Your task to perform on an android device: turn on improve location accuracy Image 0: 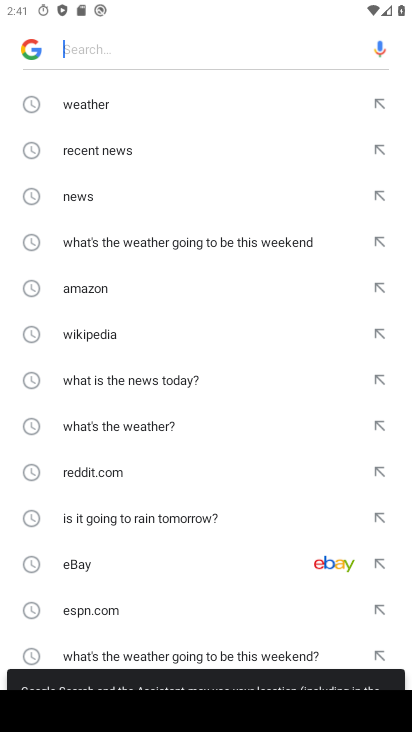
Step 0: press home button
Your task to perform on an android device: turn on improve location accuracy Image 1: 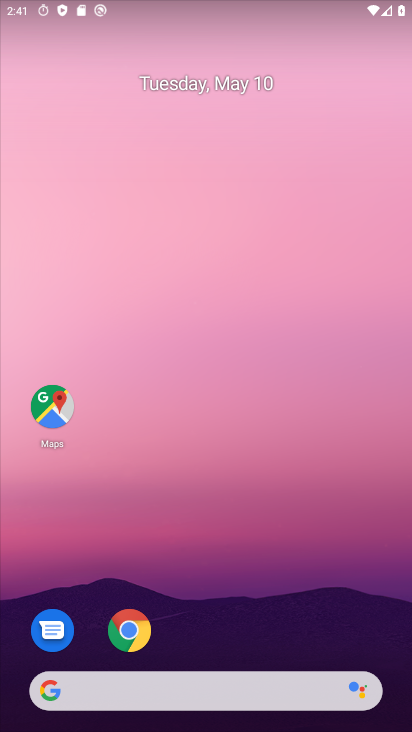
Step 1: drag from (281, 599) to (333, 16)
Your task to perform on an android device: turn on improve location accuracy Image 2: 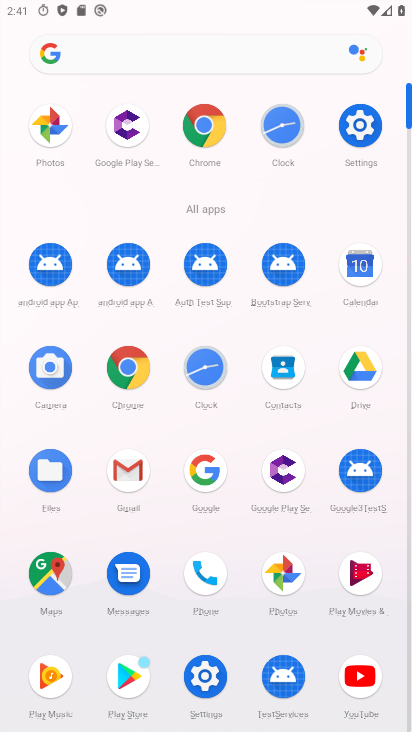
Step 2: click (354, 127)
Your task to perform on an android device: turn on improve location accuracy Image 3: 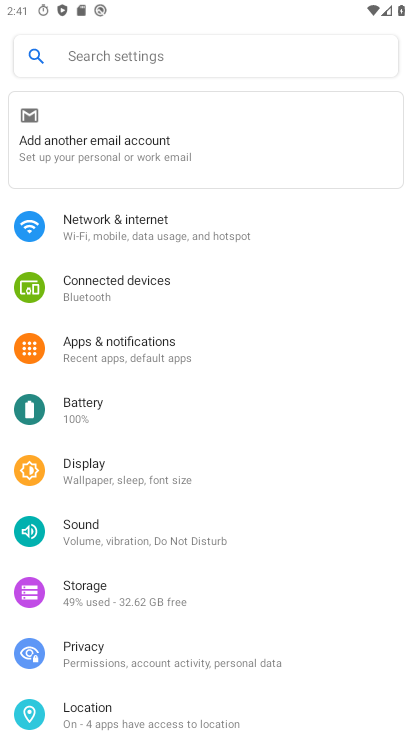
Step 3: click (97, 711)
Your task to perform on an android device: turn on improve location accuracy Image 4: 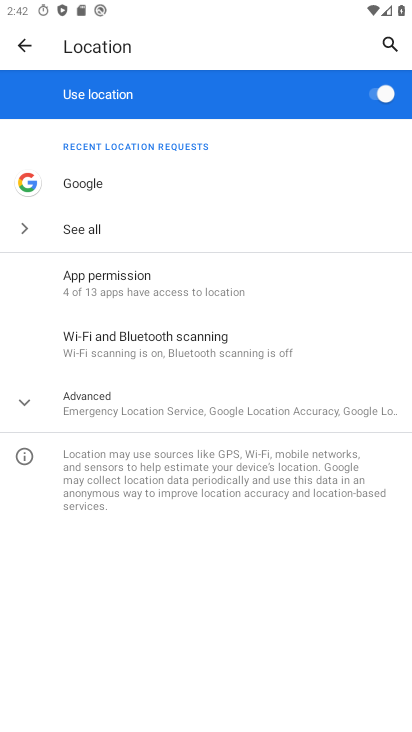
Step 4: click (157, 408)
Your task to perform on an android device: turn on improve location accuracy Image 5: 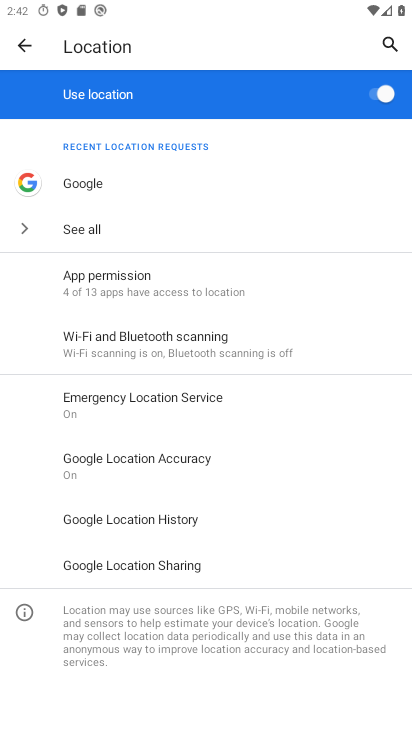
Step 5: click (151, 463)
Your task to perform on an android device: turn on improve location accuracy Image 6: 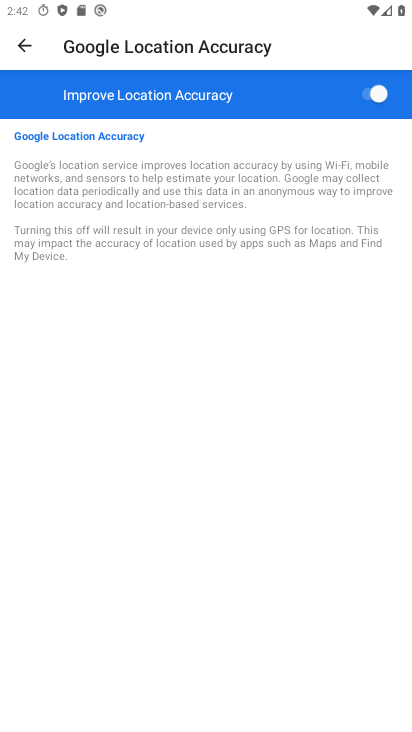
Step 6: task complete